Your task to perform on an android device: open wifi settings Image 0: 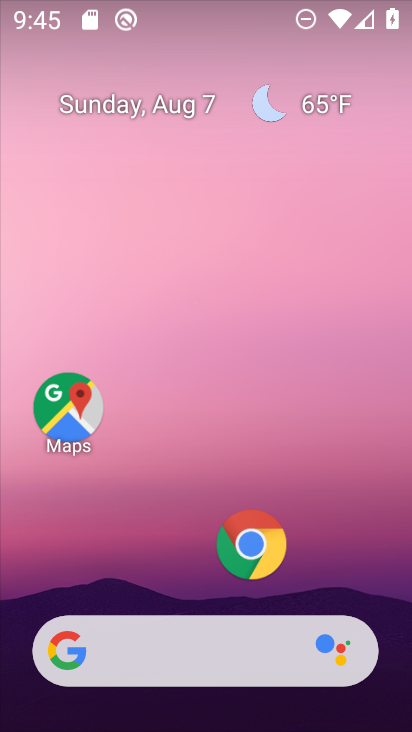
Step 0: drag from (225, 544) to (244, 14)
Your task to perform on an android device: open wifi settings Image 1: 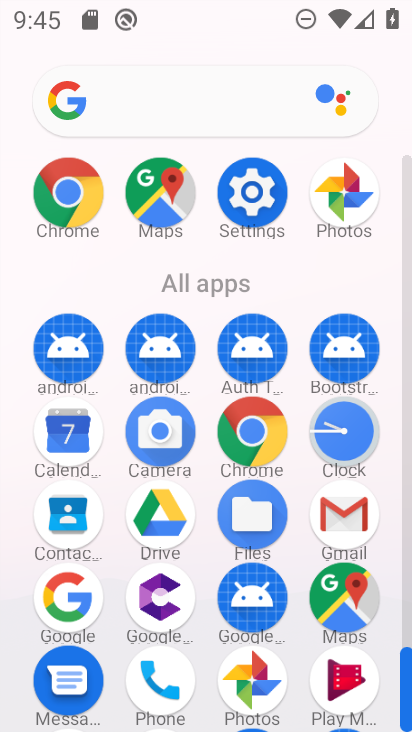
Step 1: click (264, 221)
Your task to perform on an android device: open wifi settings Image 2: 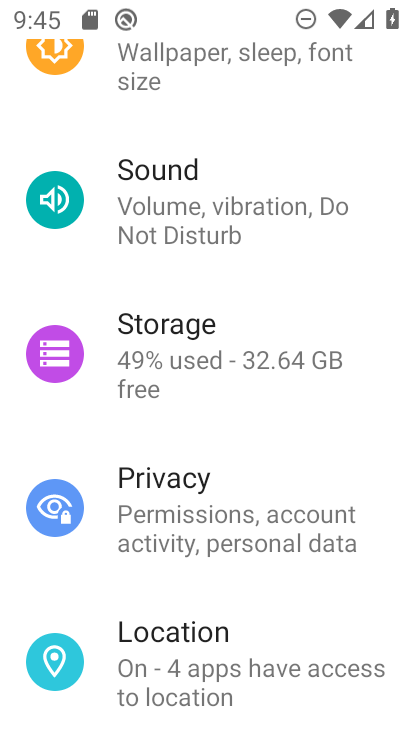
Step 2: drag from (198, 198) to (159, 730)
Your task to perform on an android device: open wifi settings Image 3: 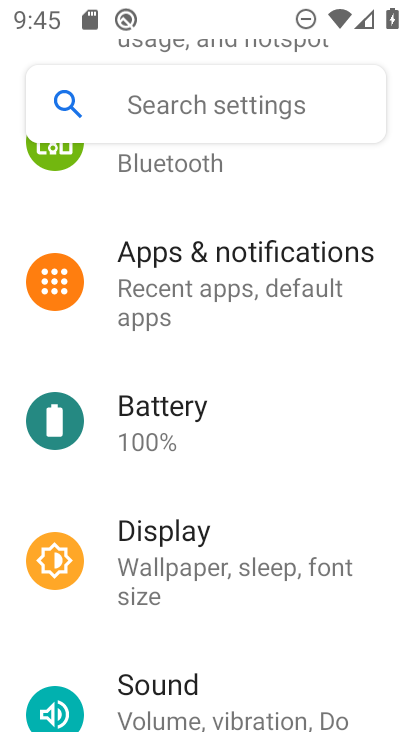
Step 3: drag from (171, 327) to (163, 680)
Your task to perform on an android device: open wifi settings Image 4: 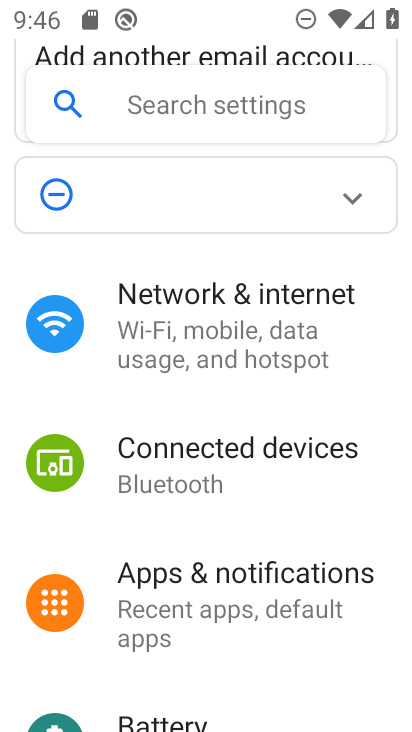
Step 4: click (231, 319)
Your task to perform on an android device: open wifi settings Image 5: 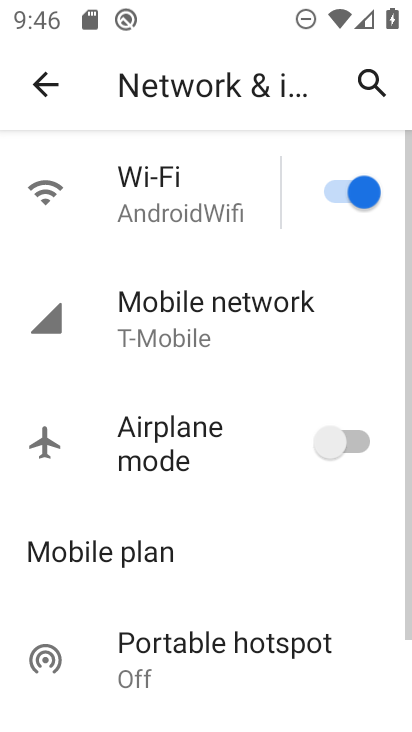
Step 5: click (161, 185)
Your task to perform on an android device: open wifi settings Image 6: 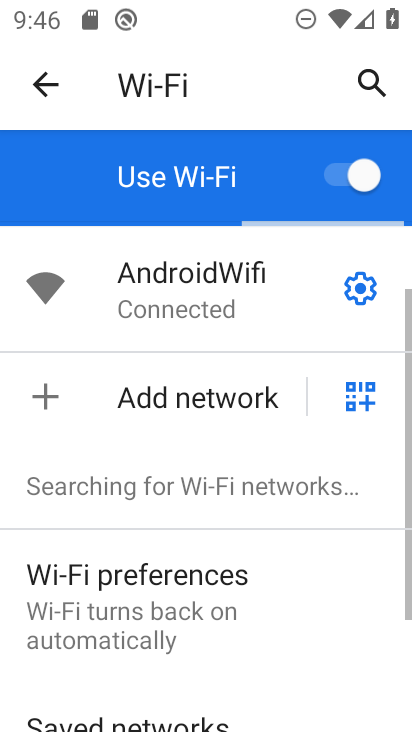
Step 6: task complete